Your task to perform on an android device: toggle airplane mode Image 0: 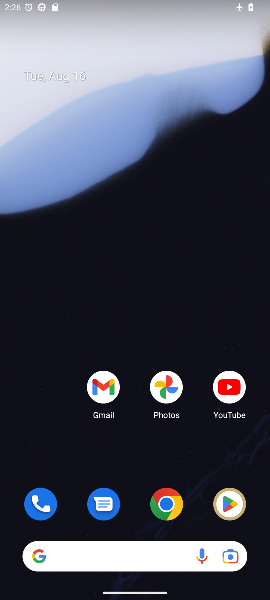
Step 0: drag from (129, 485) to (62, 18)
Your task to perform on an android device: toggle airplane mode Image 1: 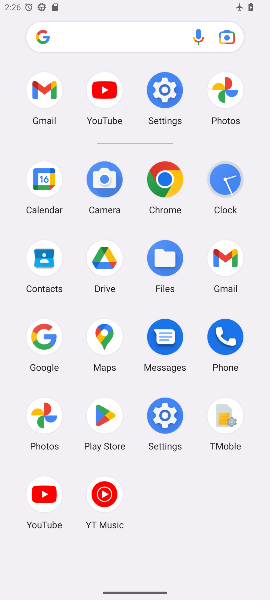
Step 1: click (158, 84)
Your task to perform on an android device: toggle airplane mode Image 2: 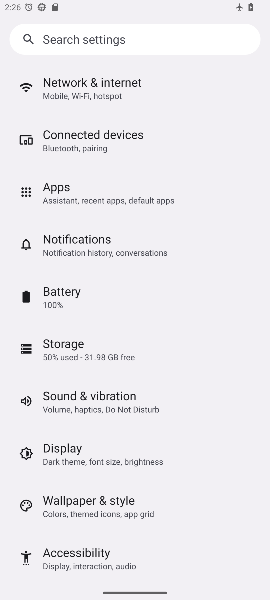
Step 2: click (93, 88)
Your task to perform on an android device: toggle airplane mode Image 3: 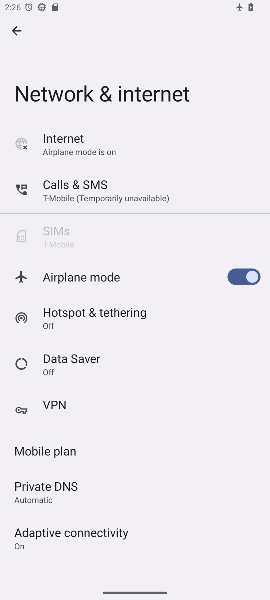
Step 3: click (251, 282)
Your task to perform on an android device: toggle airplane mode Image 4: 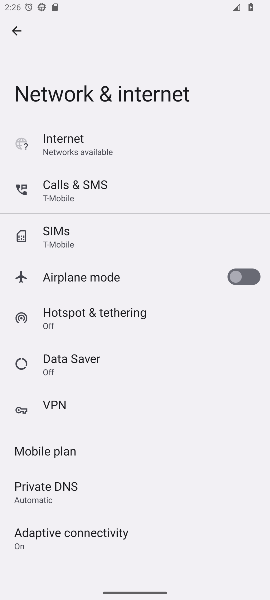
Step 4: task complete